Your task to perform on an android device: open device folders in google photos Image 0: 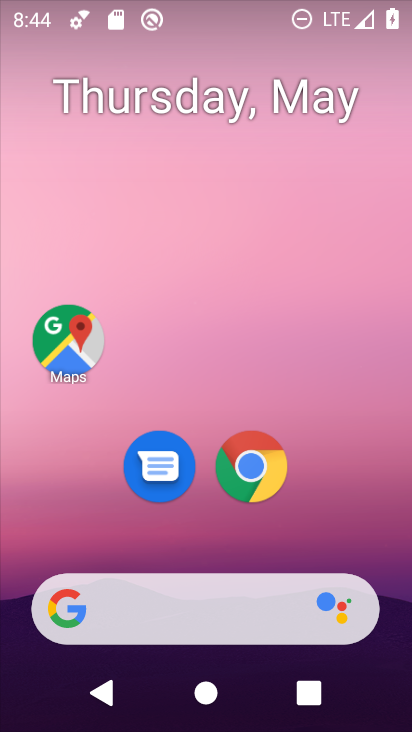
Step 0: drag from (371, 526) to (365, 25)
Your task to perform on an android device: open device folders in google photos Image 1: 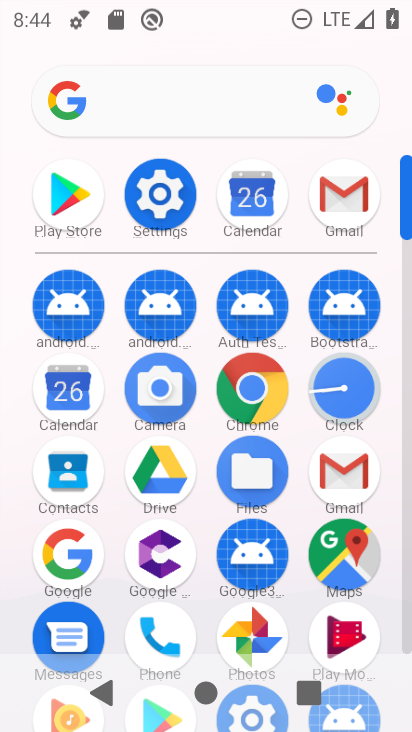
Step 1: click (260, 629)
Your task to perform on an android device: open device folders in google photos Image 2: 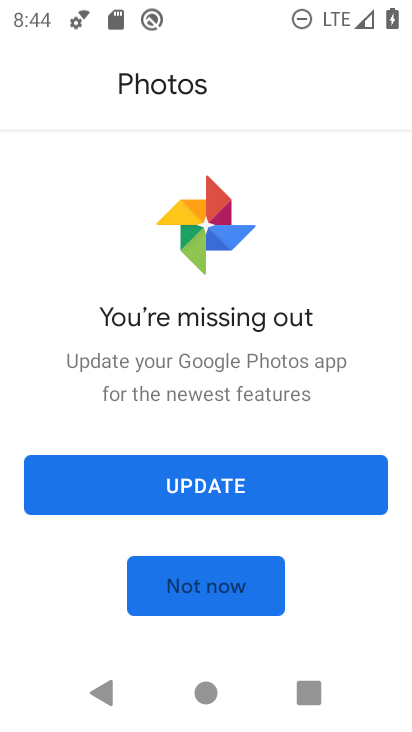
Step 2: click (195, 578)
Your task to perform on an android device: open device folders in google photos Image 3: 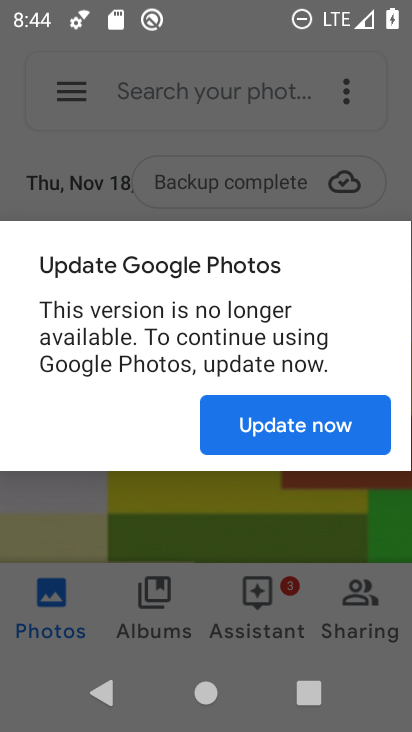
Step 3: click (290, 422)
Your task to perform on an android device: open device folders in google photos Image 4: 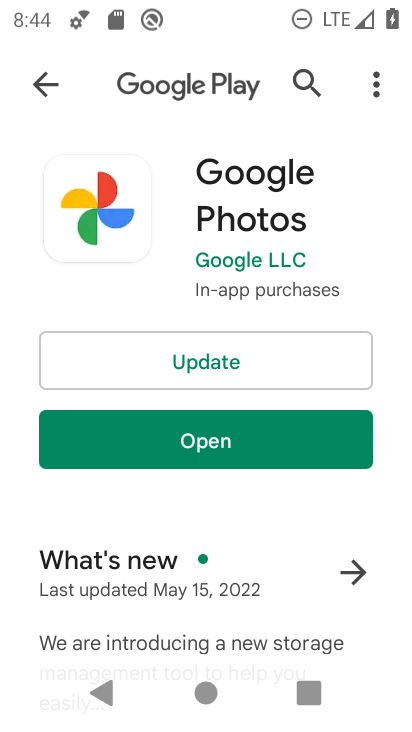
Step 4: click (218, 449)
Your task to perform on an android device: open device folders in google photos Image 5: 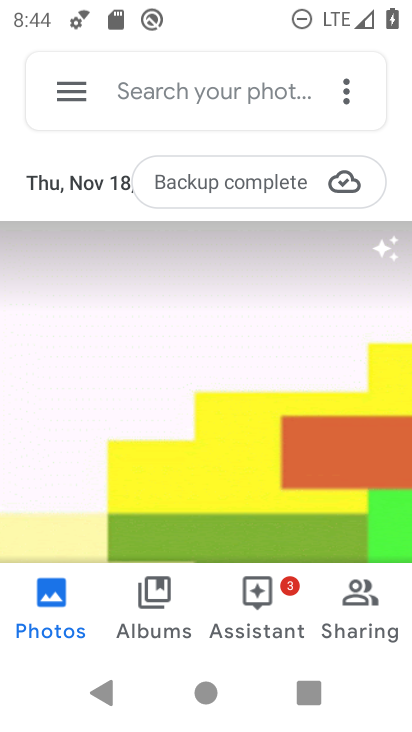
Step 5: click (68, 87)
Your task to perform on an android device: open device folders in google photos Image 6: 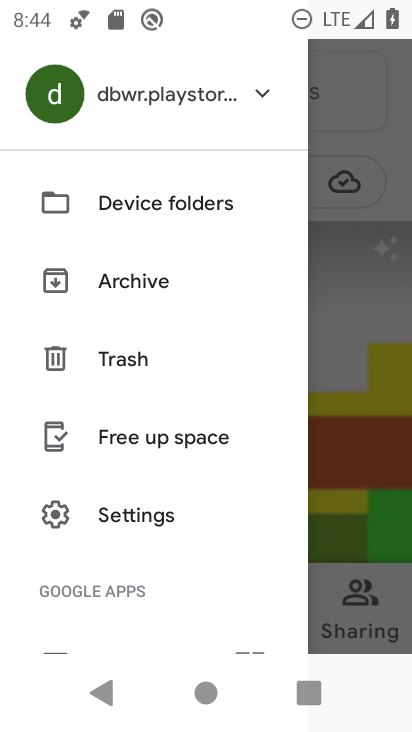
Step 6: click (110, 206)
Your task to perform on an android device: open device folders in google photos Image 7: 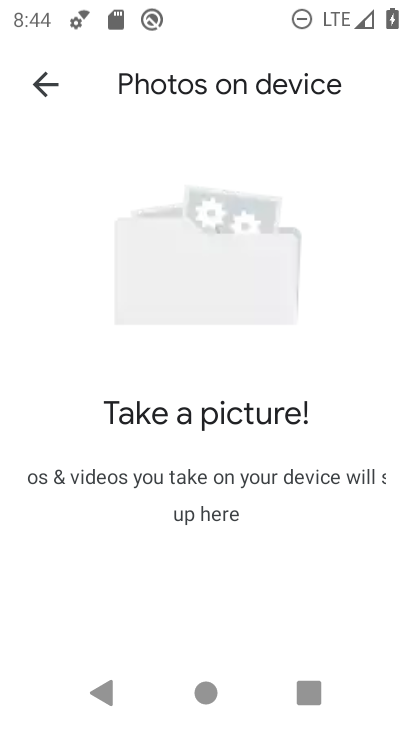
Step 7: task complete